Your task to perform on an android device: change the clock display to analog Image 0: 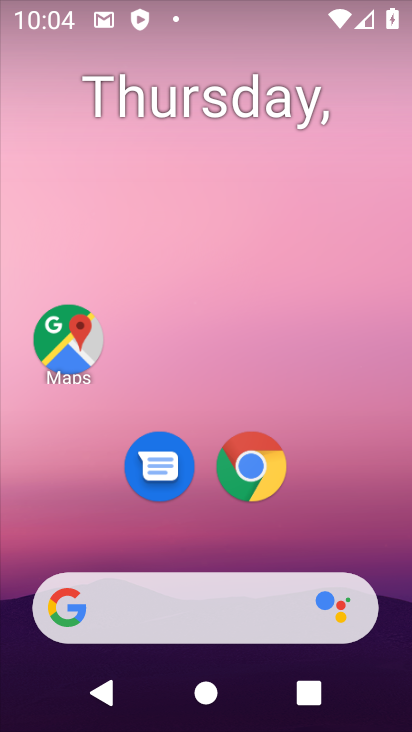
Step 0: drag from (212, 551) to (197, 156)
Your task to perform on an android device: change the clock display to analog Image 1: 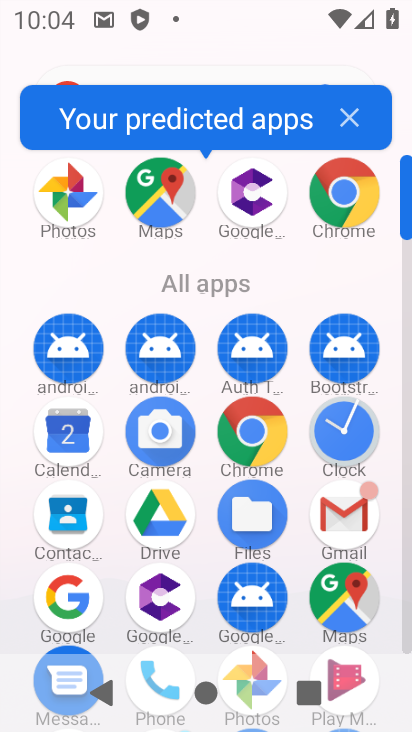
Step 1: click (348, 425)
Your task to perform on an android device: change the clock display to analog Image 2: 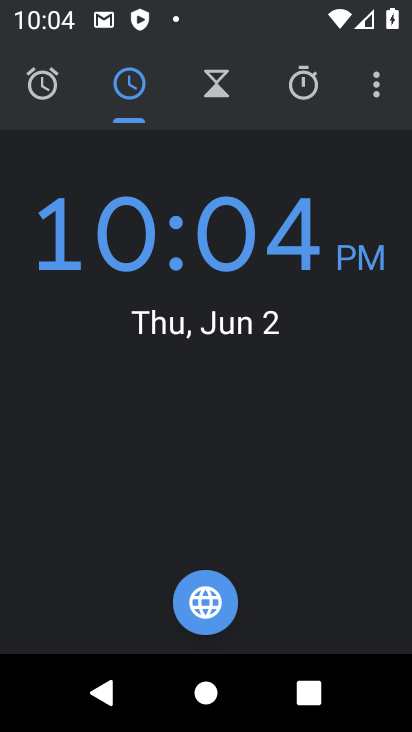
Step 2: click (368, 80)
Your task to perform on an android device: change the clock display to analog Image 3: 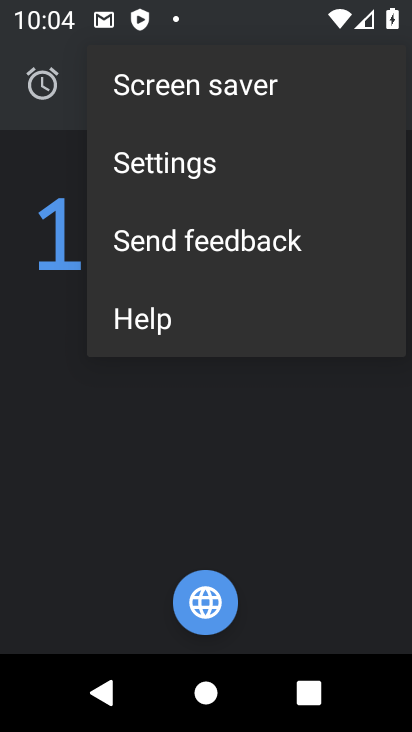
Step 3: click (178, 157)
Your task to perform on an android device: change the clock display to analog Image 4: 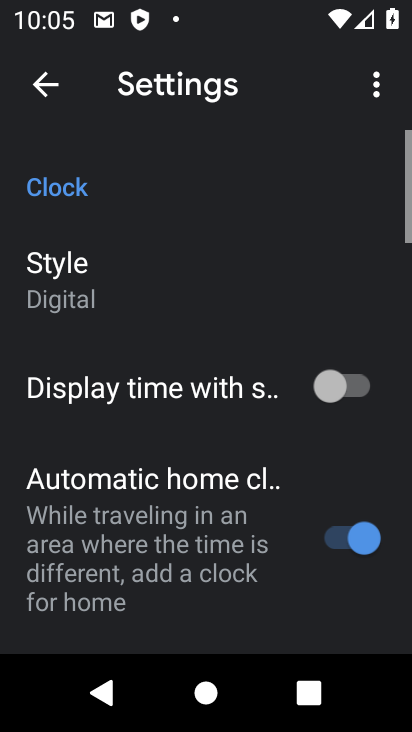
Step 4: click (127, 273)
Your task to perform on an android device: change the clock display to analog Image 5: 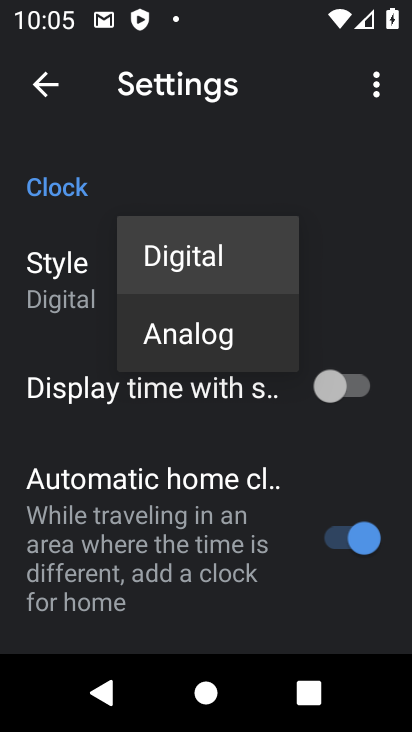
Step 5: click (154, 316)
Your task to perform on an android device: change the clock display to analog Image 6: 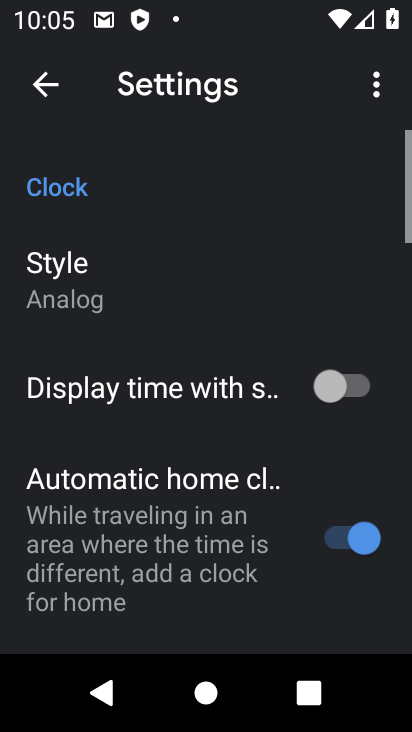
Step 6: task complete